Your task to perform on an android device: Go to internet settings Image 0: 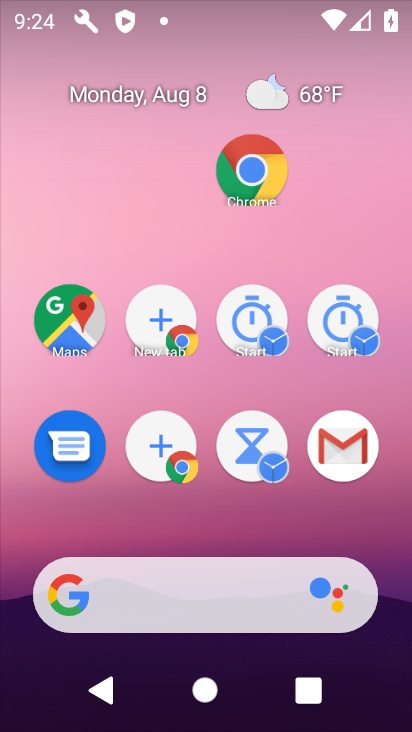
Step 0: drag from (258, 657) to (217, 130)
Your task to perform on an android device: Go to internet settings Image 1: 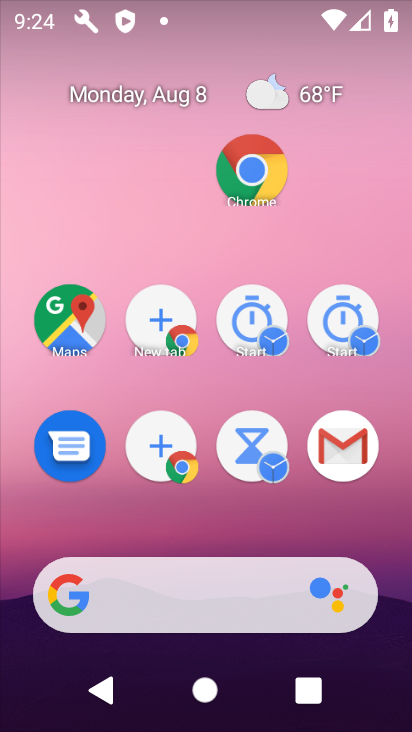
Step 1: drag from (286, 561) to (289, 235)
Your task to perform on an android device: Go to internet settings Image 2: 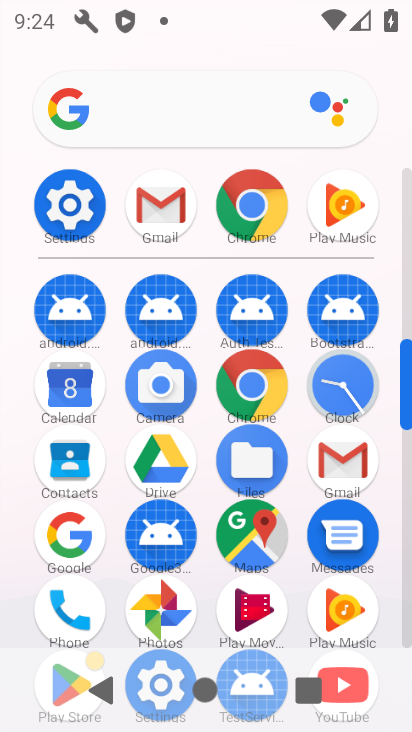
Step 2: drag from (187, 276) to (180, 186)
Your task to perform on an android device: Go to internet settings Image 3: 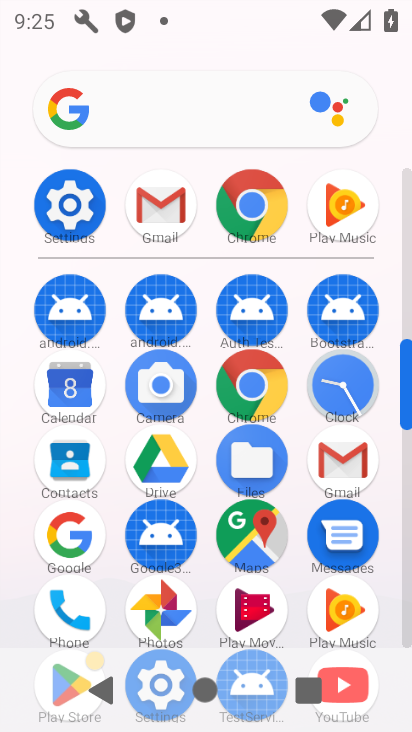
Step 3: click (240, 206)
Your task to perform on an android device: Go to internet settings Image 4: 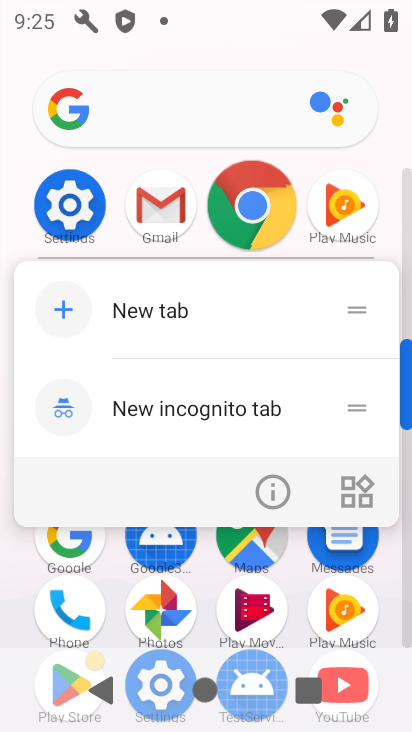
Step 4: click (251, 200)
Your task to perform on an android device: Go to internet settings Image 5: 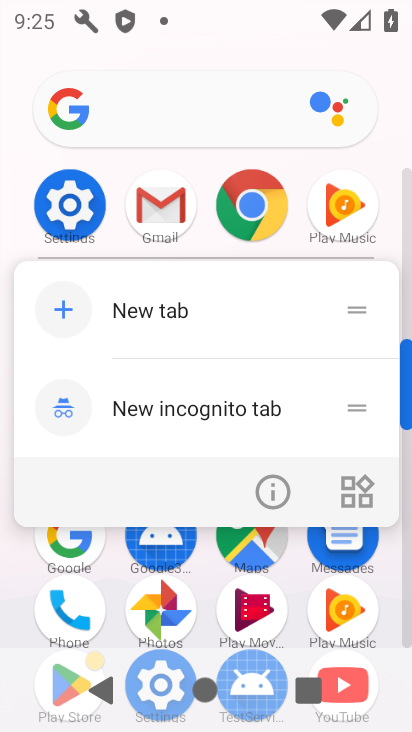
Step 5: click (174, 313)
Your task to perform on an android device: Go to internet settings Image 6: 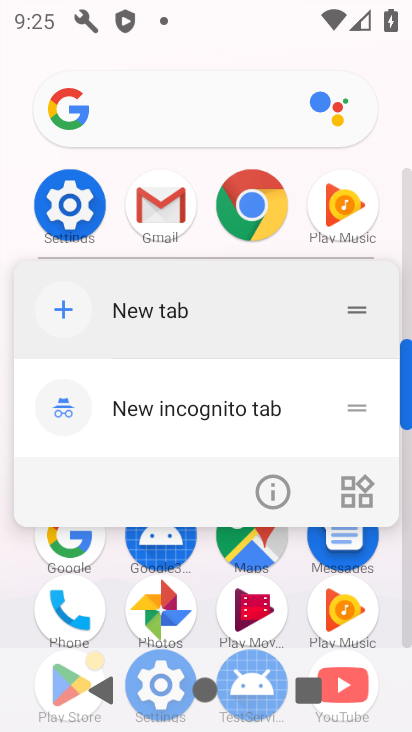
Step 6: click (256, 224)
Your task to perform on an android device: Go to internet settings Image 7: 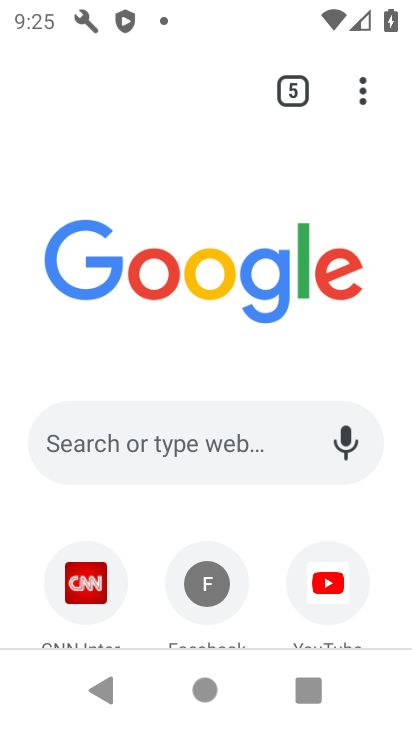
Step 7: click (366, 99)
Your task to perform on an android device: Go to internet settings Image 8: 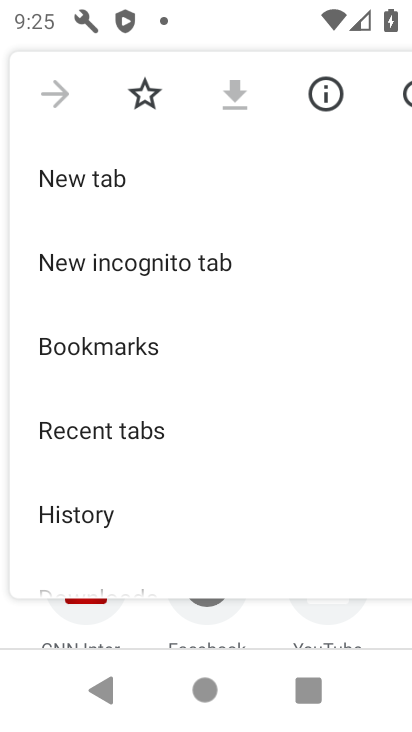
Step 8: click (63, 115)
Your task to perform on an android device: Go to internet settings Image 9: 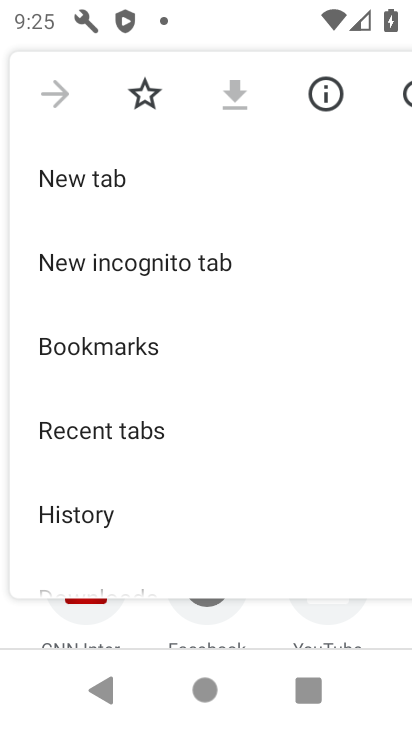
Step 9: click (63, 115)
Your task to perform on an android device: Go to internet settings Image 10: 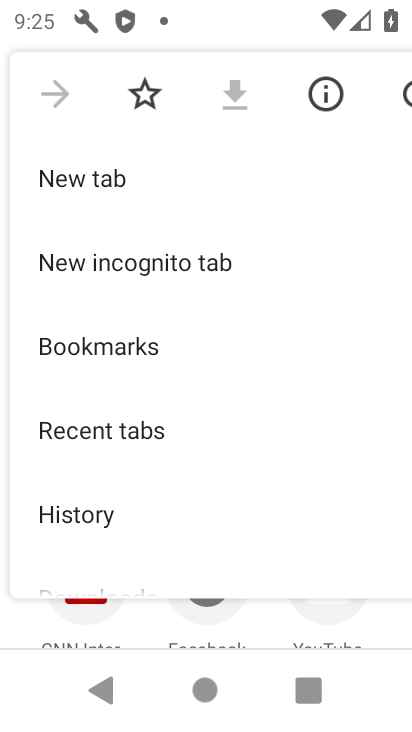
Step 10: click (64, 114)
Your task to perform on an android device: Go to internet settings Image 11: 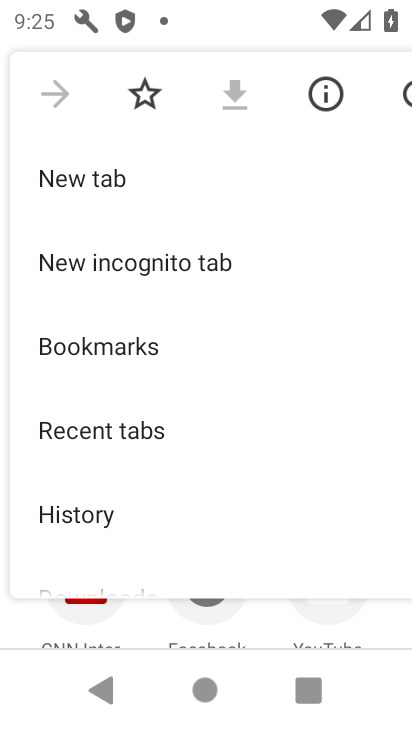
Step 11: click (64, 114)
Your task to perform on an android device: Go to internet settings Image 12: 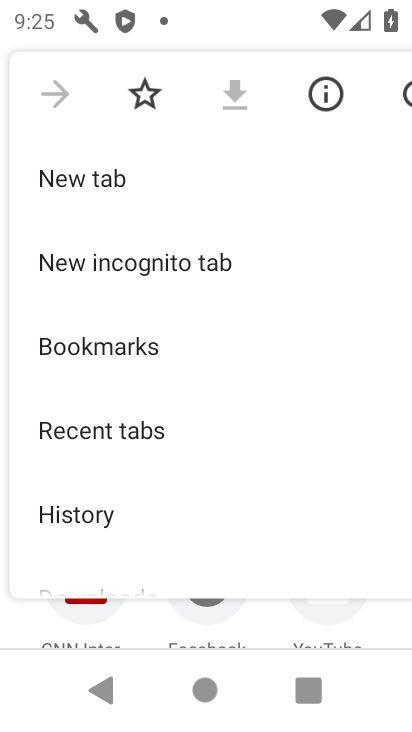
Step 12: press back button
Your task to perform on an android device: Go to internet settings Image 13: 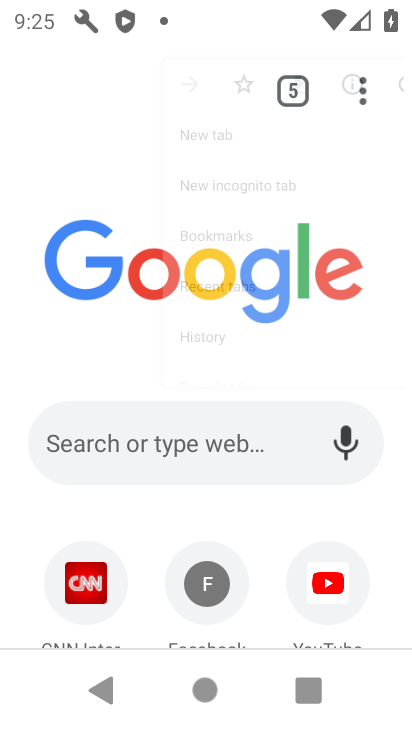
Step 13: press back button
Your task to perform on an android device: Go to internet settings Image 14: 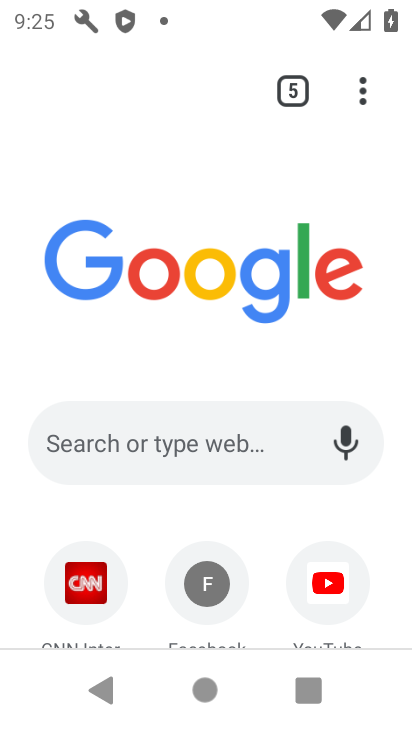
Step 14: press back button
Your task to perform on an android device: Go to internet settings Image 15: 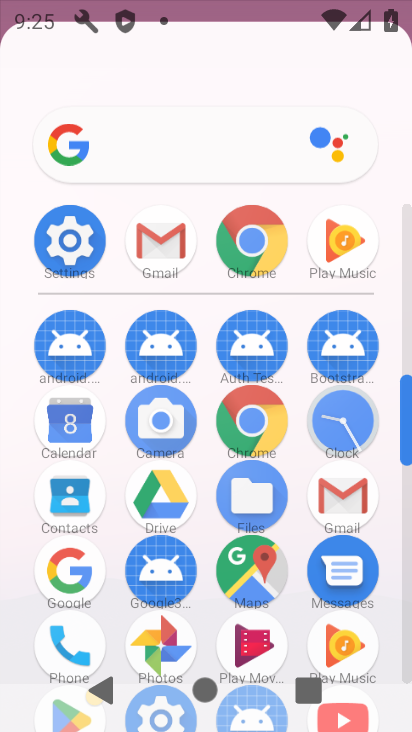
Step 15: drag from (261, 624) to (234, 145)
Your task to perform on an android device: Go to internet settings Image 16: 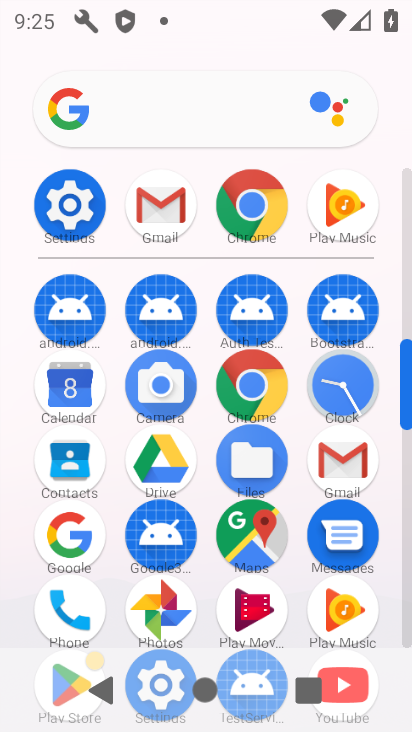
Step 16: click (67, 201)
Your task to perform on an android device: Go to internet settings Image 17: 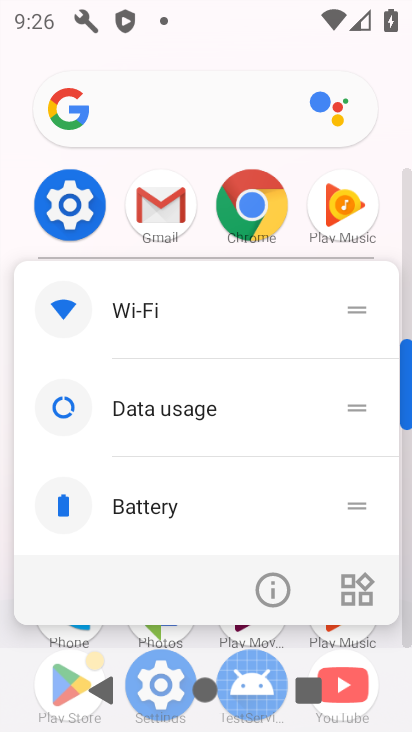
Step 17: click (125, 318)
Your task to perform on an android device: Go to internet settings Image 18: 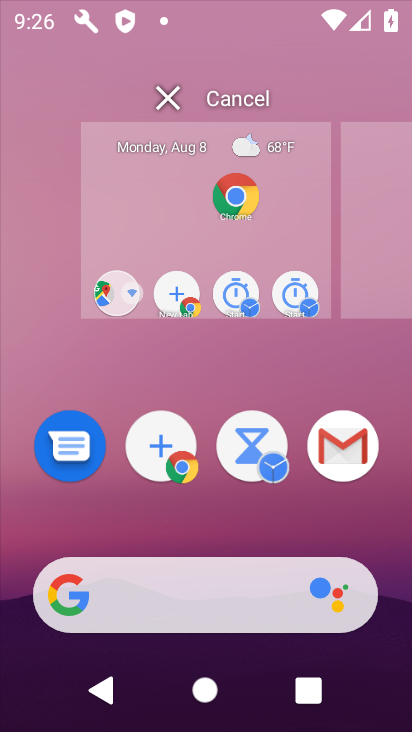
Step 18: drag from (212, 449) to (171, 72)
Your task to perform on an android device: Go to internet settings Image 19: 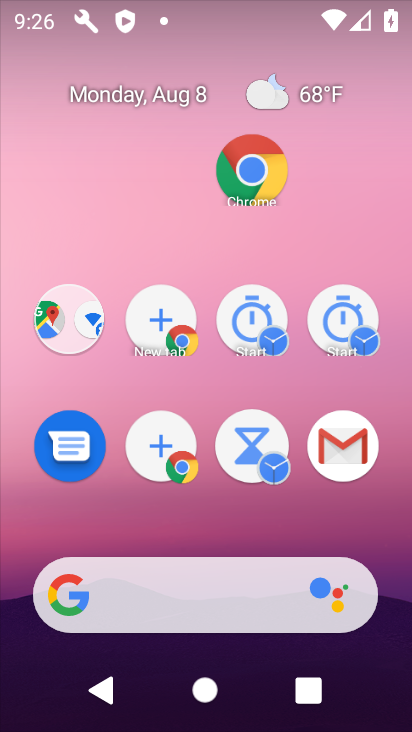
Step 19: drag from (235, 478) to (192, 134)
Your task to perform on an android device: Go to internet settings Image 20: 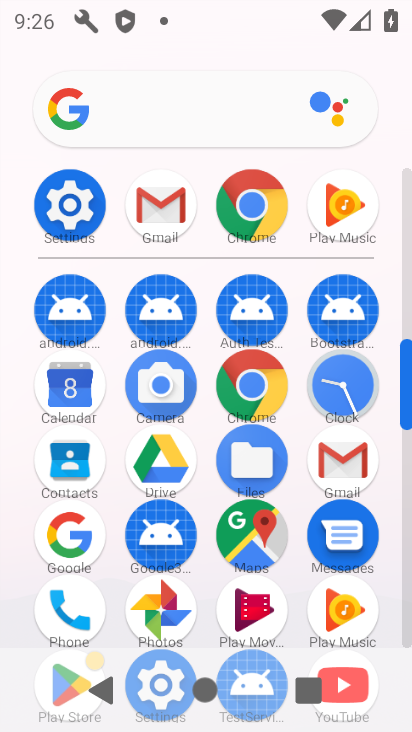
Step 20: drag from (190, 421) to (161, 260)
Your task to perform on an android device: Go to internet settings Image 21: 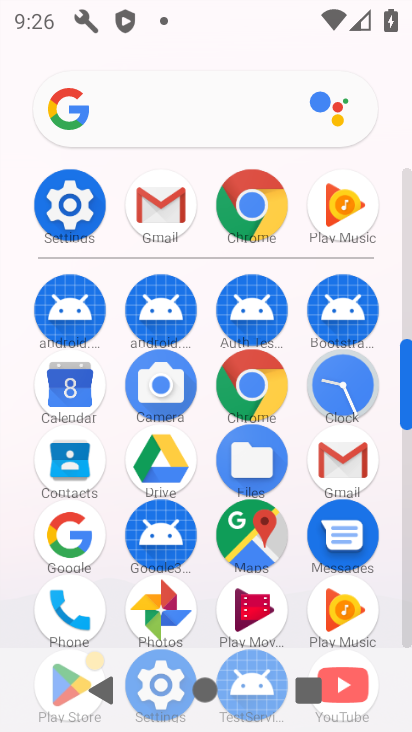
Step 21: click (57, 200)
Your task to perform on an android device: Go to internet settings Image 22: 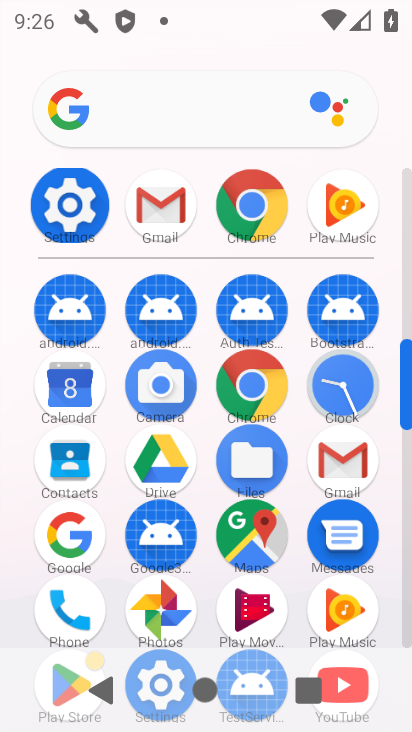
Step 22: click (58, 199)
Your task to perform on an android device: Go to internet settings Image 23: 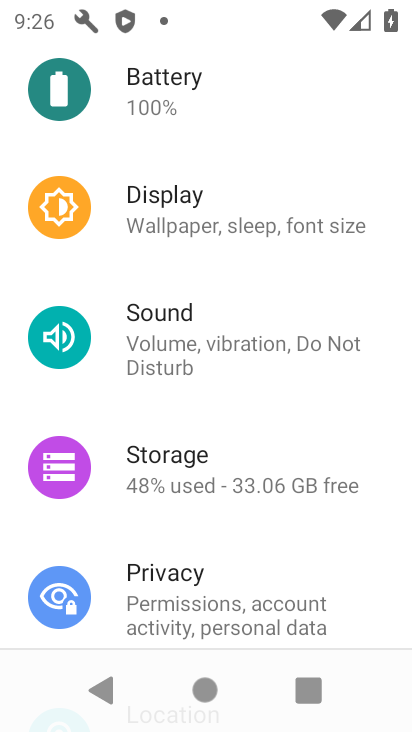
Step 23: drag from (201, 207) to (250, 492)
Your task to perform on an android device: Go to internet settings Image 24: 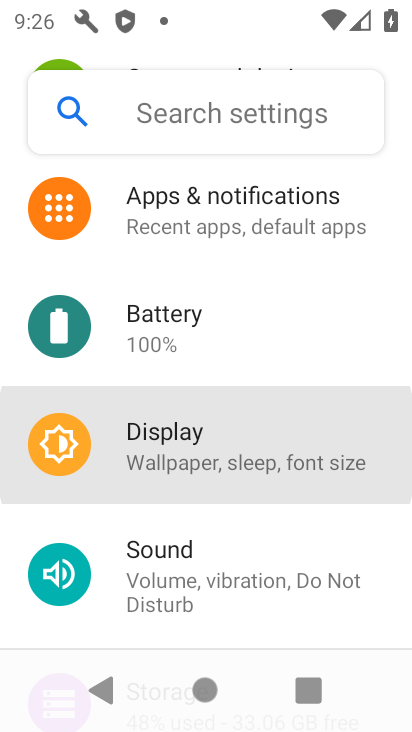
Step 24: drag from (232, 228) to (232, 478)
Your task to perform on an android device: Go to internet settings Image 25: 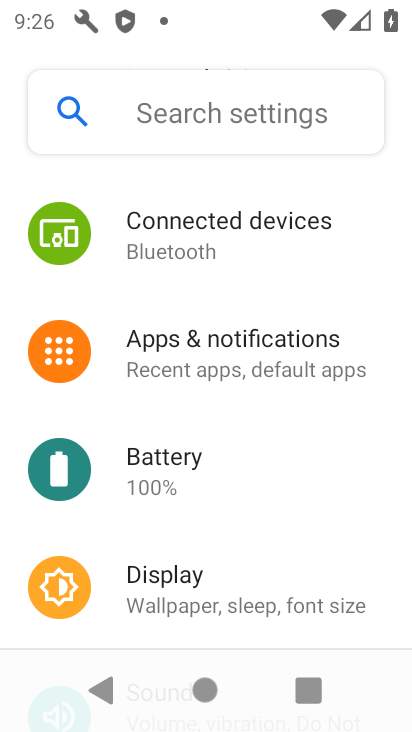
Step 25: drag from (231, 255) to (240, 552)
Your task to perform on an android device: Go to internet settings Image 26: 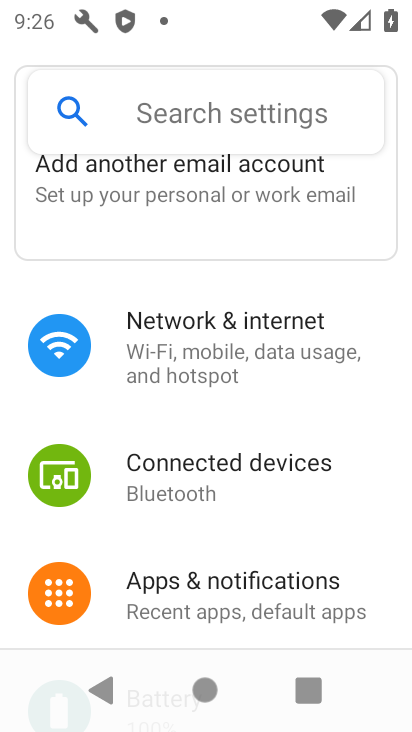
Step 26: drag from (164, 247) to (164, 525)
Your task to perform on an android device: Go to internet settings Image 27: 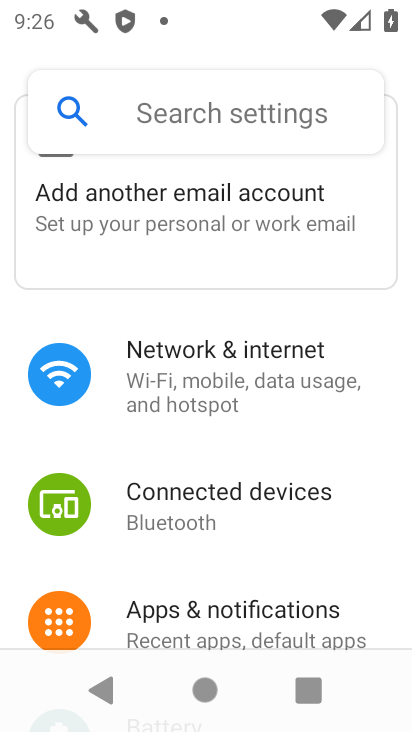
Step 27: drag from (156, 273) to (182, 497)
Your task to perform on an android device: Go to internet settings Image 28: 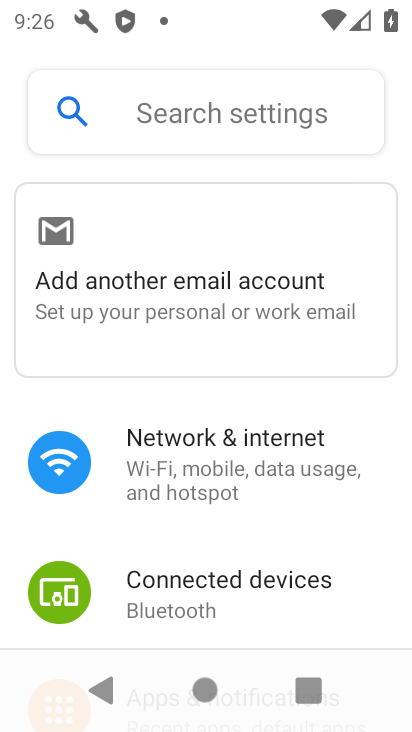
Step 28: click (190, 389)
Your task to perform on an android device: Go to internet settings Image 29: 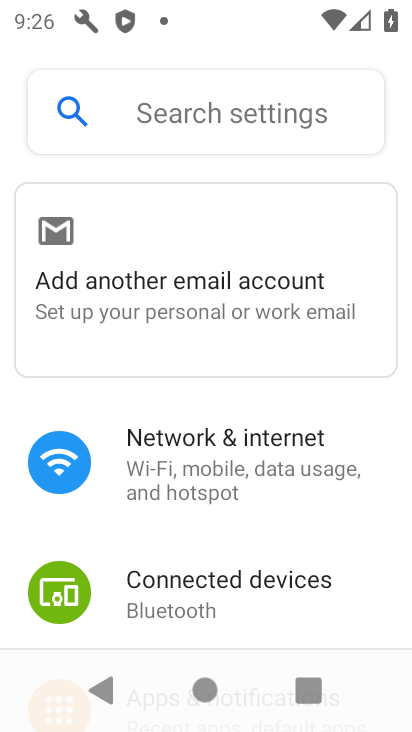
Step 29: click (185, 469)
Your task to perform on an android device: Go to internet settings Image 30: 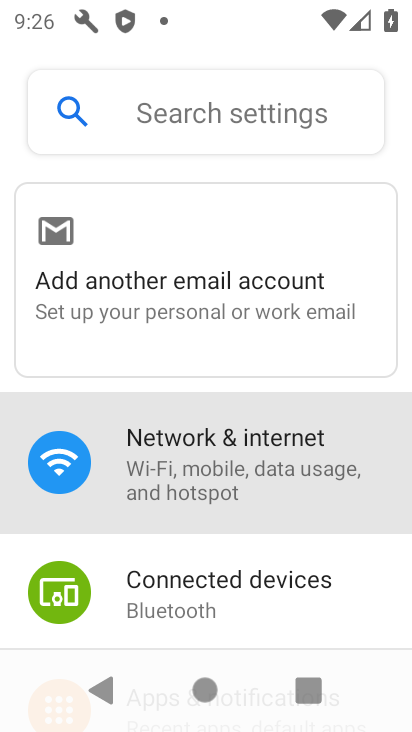
Step 30: click (219, 474)
Your task to perform on an android device: Go to internet settings Image 31: 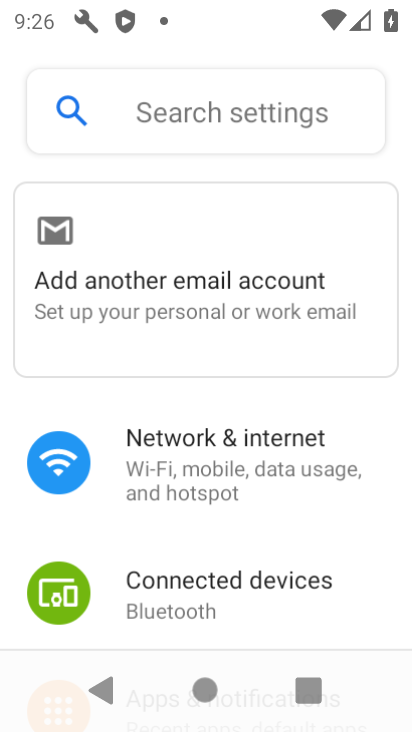
Step 31: click (233, 482)
Your task to perform on an android device: Go to internet settings Image 32: 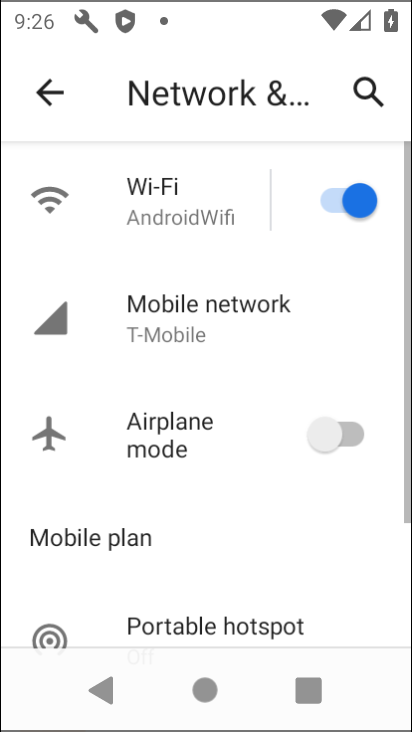
Step 32: click (245, 507)
Your task to perform on an android device: Go to internet settings Image 33: 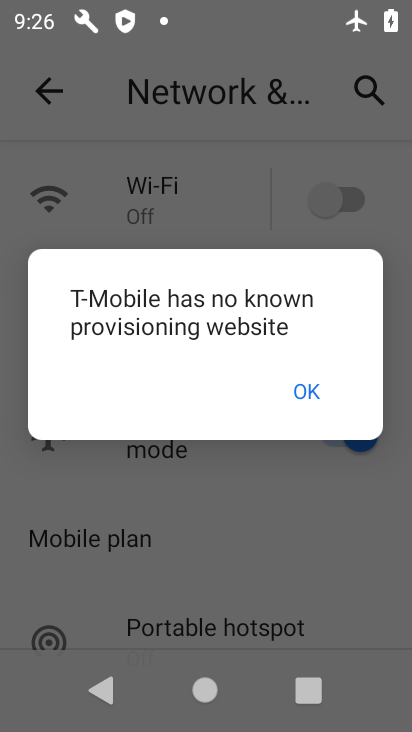
Step 33: click (310, 407)
Your task to perform on an android device: Go to internet settings Image 34: 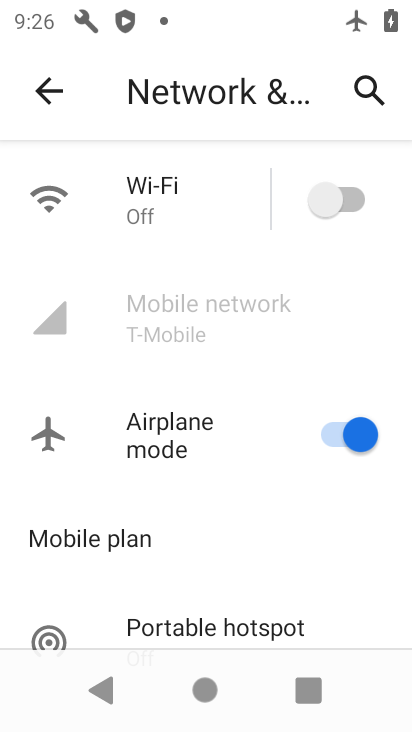
Step 34: click (361, 443)
Your task to perform on an android device: Go to internet settings Image 35: 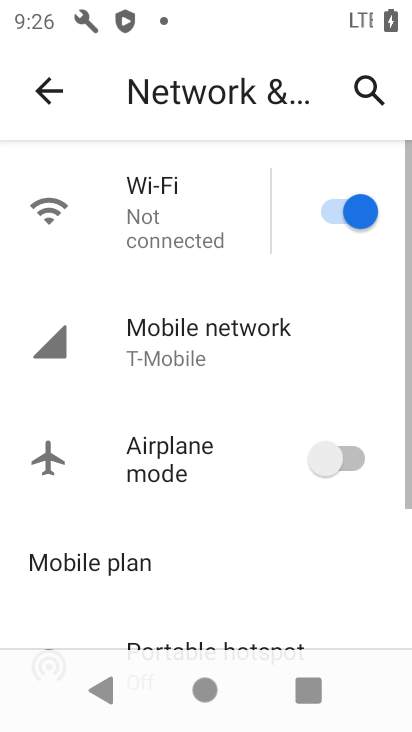
Step 35: click (324, 195)
Your task to perform on an android device: Go to internet settings Image 36: 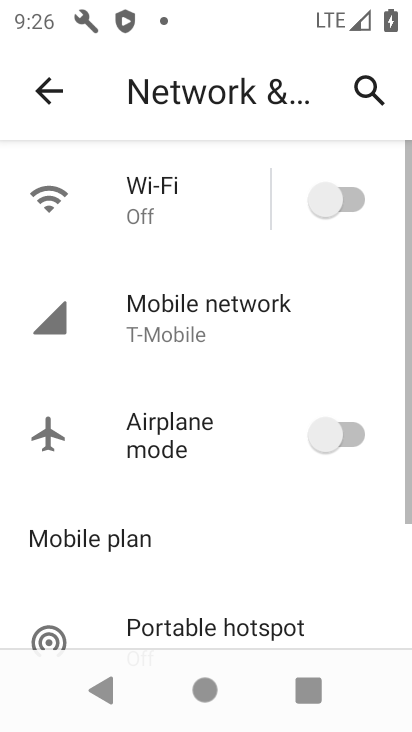
Step 36: click (324, 195)
Your task to perform on an android device: Go to internet settings Image 37: 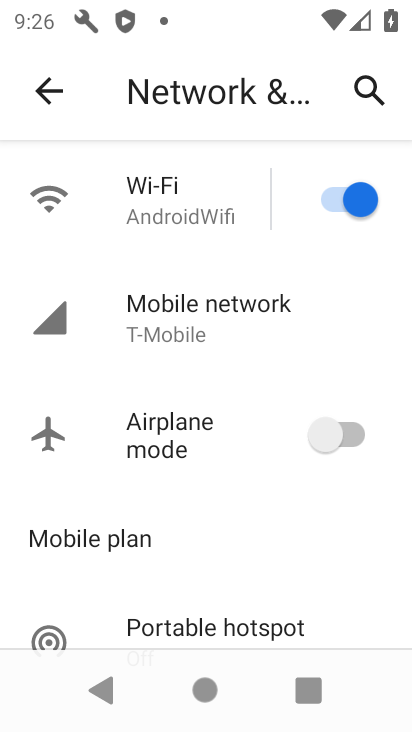
Step 37: task complete